Your task to perform on an android device: check the backup settings in the google photos Image 0: 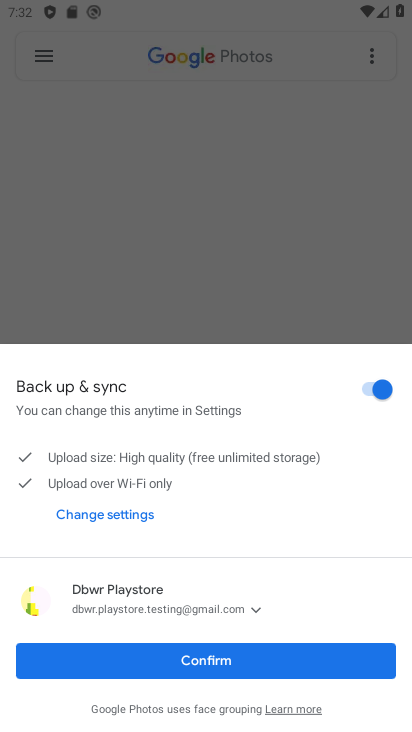
Step 0: click (180, 664)
Your task to perform on an android device: check the backup settings in the google photos Image 1: 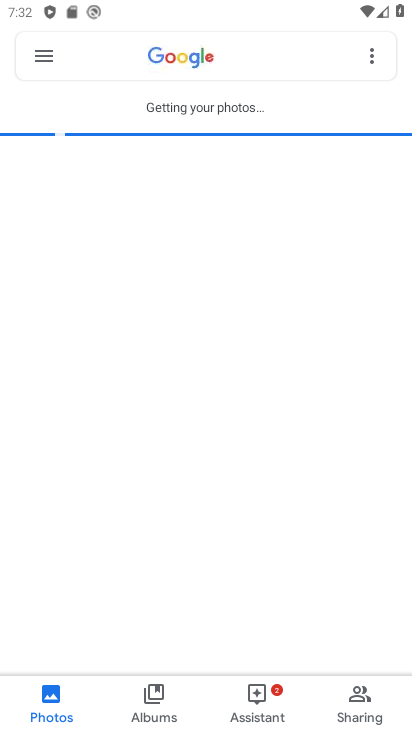
Step 1: click (40, 51)
Your task to perform on an android device: check the backup settings in the google photos Image 2: 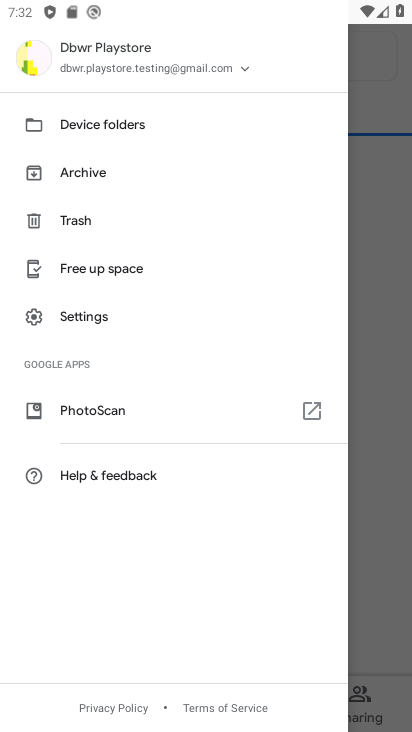
Step 2: click (96, 311)
Your task to perform on an android device: check the backup settings in the google photos Image 3: 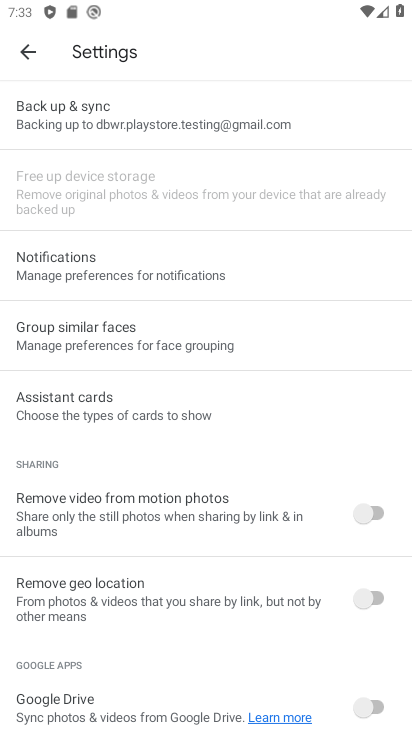
Step 3: click (106, 118)
Your task to perform on an android device: check the backup settings in the google photos Image 4: 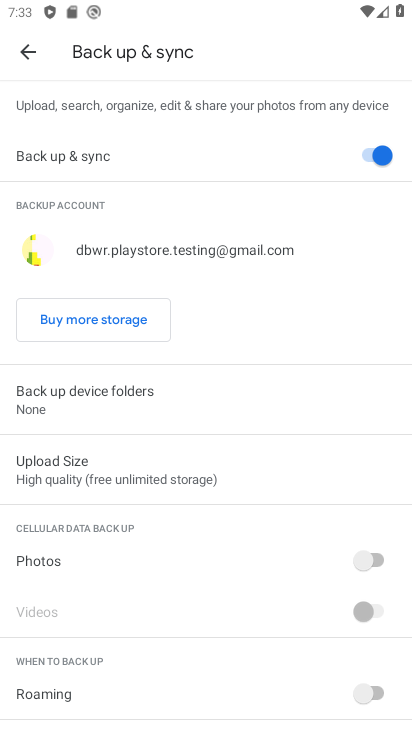
Step 4: task complete